Your task to perform on an android device: create a new album in the google photos Image 0: 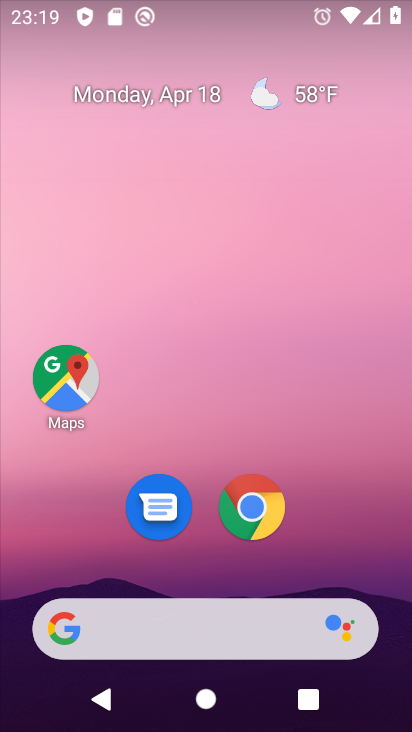
Step 0: drag from (215, 434) to (230, 23)
Your task to perform on an android device: create a new album in the google photos Image 1: 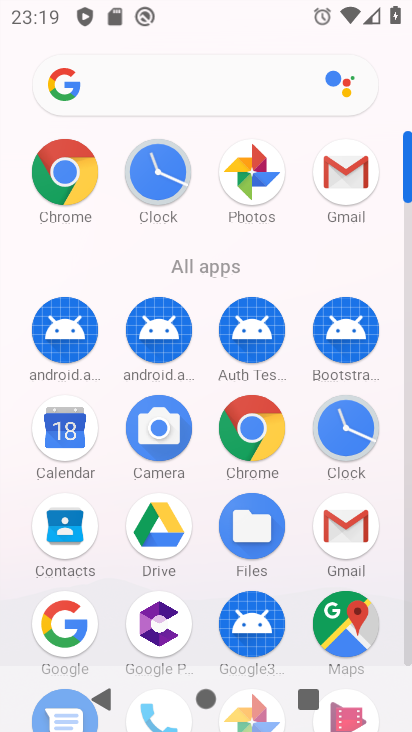
Step 1: click (265, 160)
Your task to perform on an android device: create a new album in the google photos Image 2: 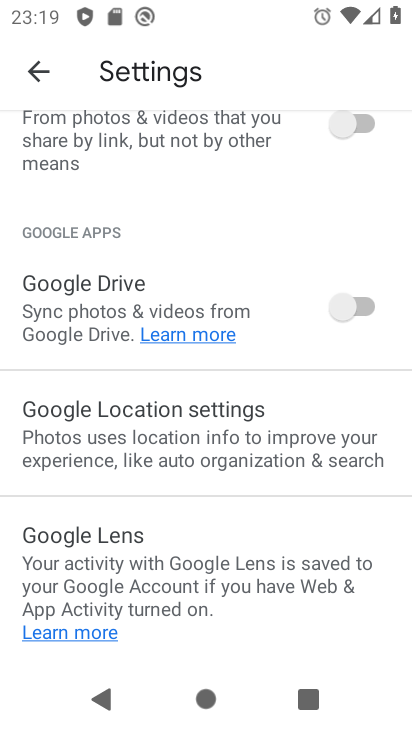
Step 2: click (49, 70)
Your task to perform on an android device: create a new album in the google photos Image 3: 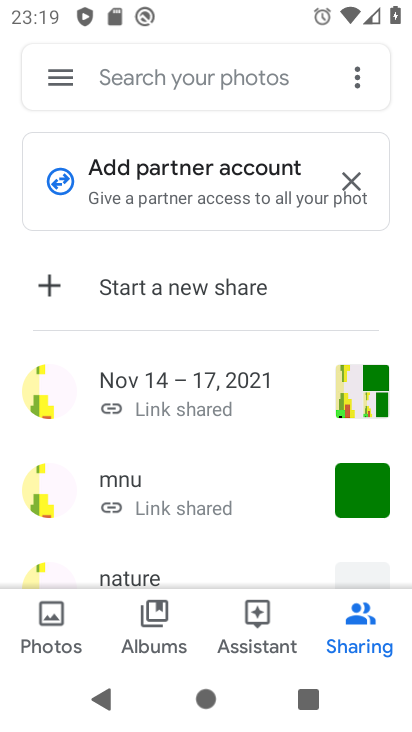
Step 3: click (64, 617)
Your task to perform on an android device: create a new album in the google photos Image 4: 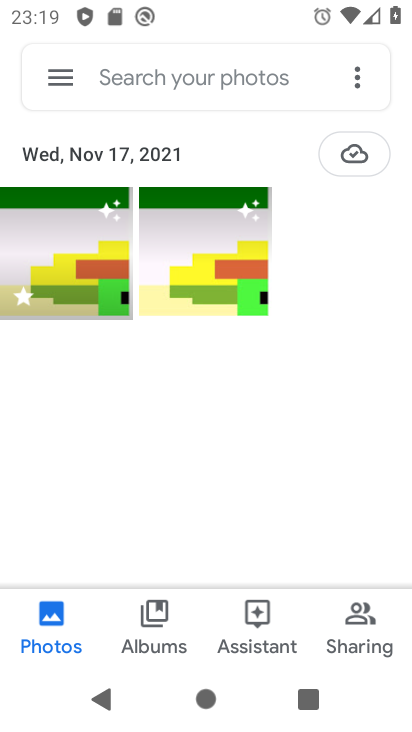
Step 4: click (79, 299)
Your task to perform on an android device: create a new album in the google photos Image 5: 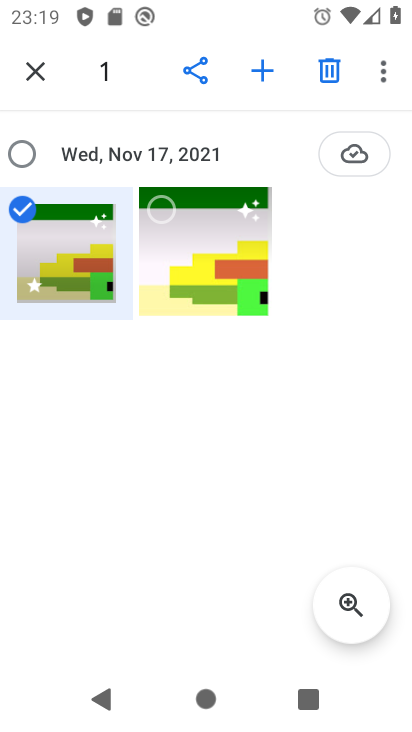
Step 5: click (156, 221)
Your task to perform on an android device: create a new album in the google photos Image 6: 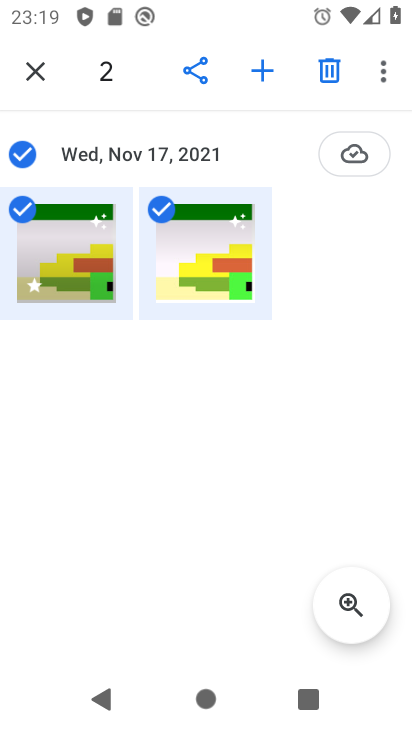
Step 6: type "iz"
Your task to perform on an android device: create a new album in the google photos Image 7: 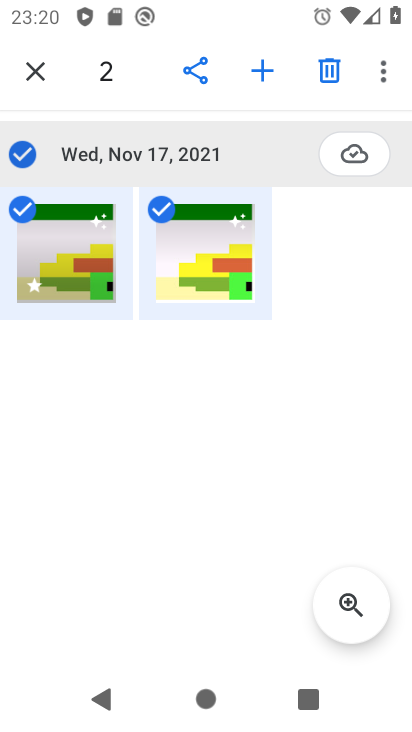
Step 7: click (263, 71)
Your task to perform on an android device: create a new album in the google photos Image 8: 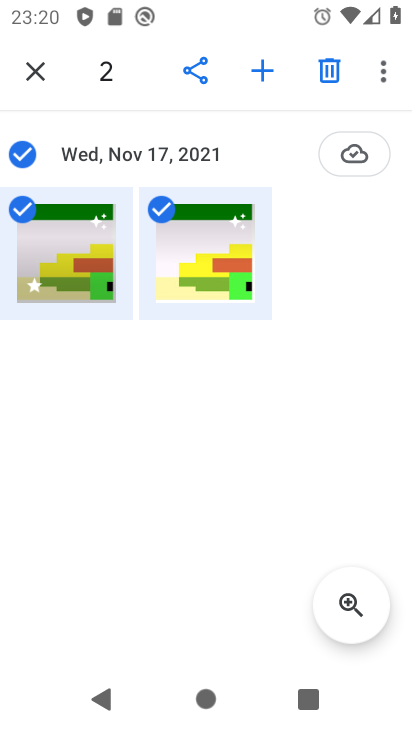
Step 8: click (259, 72)
Your task to perform on an android device: create a new album in the google photos Image 9: 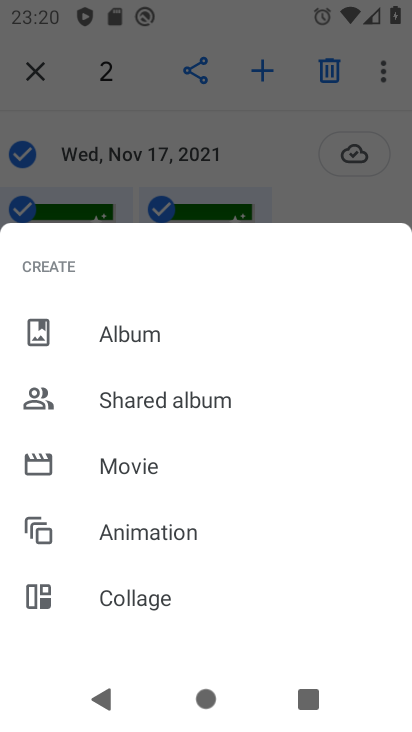
Step 9: click (136, 331)
Your task to perform on an android device: create a new album in the google photos Image 10: 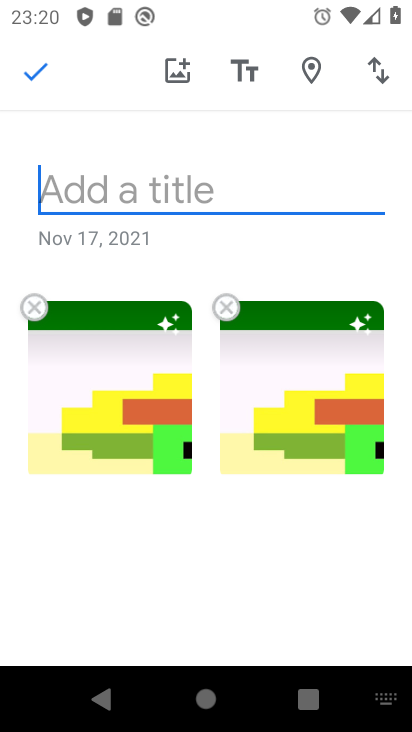
Step 10: click (244, 191)
Your task to perform on an android device: create a new album in the google photos Image 11: 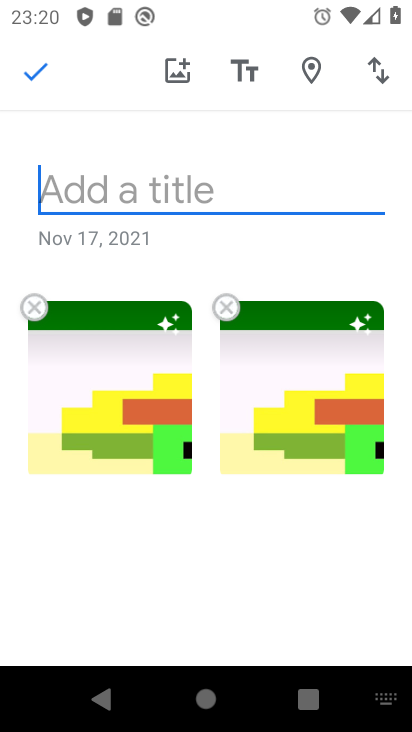
Step 11: type "iz"
Your task to perform on an android device: create a new album in the google photos Image 12: 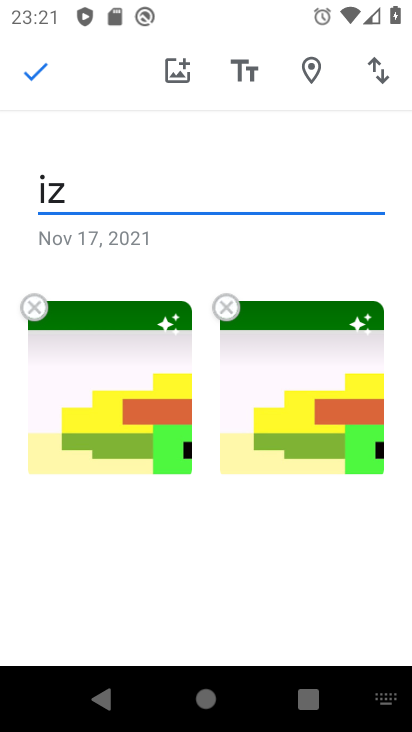
Step 12: click (28, 82)
Your task to perform on an android device: create a new album in the google photos Image 13: 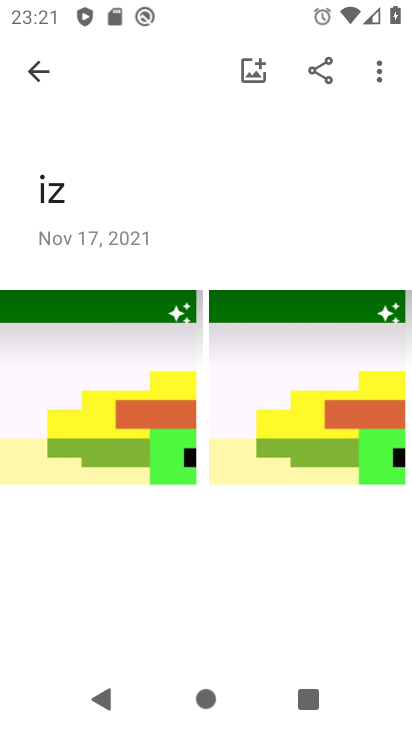
Step 13: task complete